Your task to perform on an android device: Open eBay Image 0: 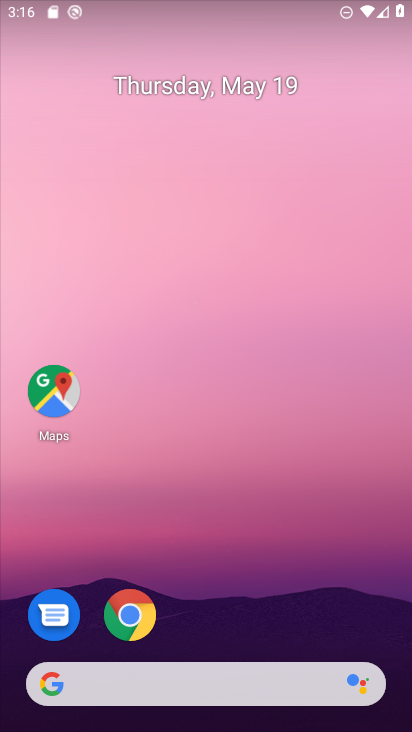
Step 0: click (115, 602)
Your task to perform on an android device: Open eBay Image 1: 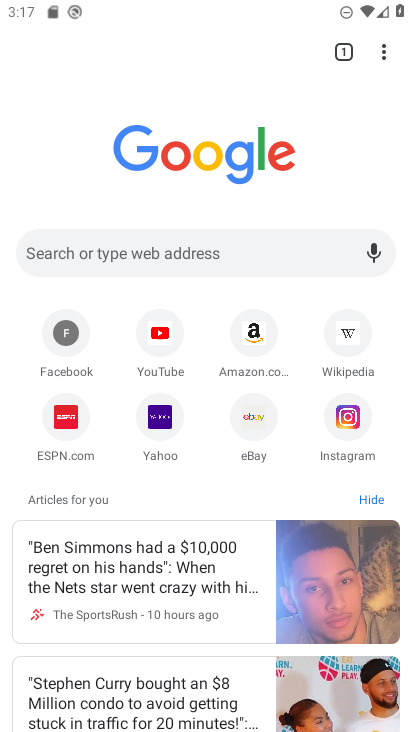
Step 1: click (234, 248)
Your task to perform on an android device: Open eBay Image 2: 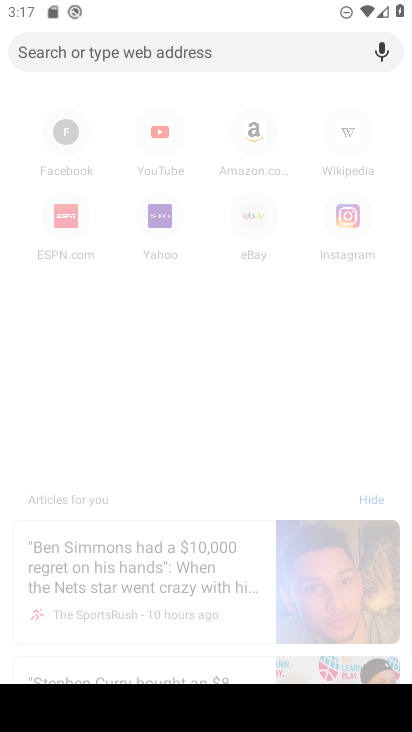
Step 2: click (228, 50)
Your task to perform on an android device: Open eBay Image 3: 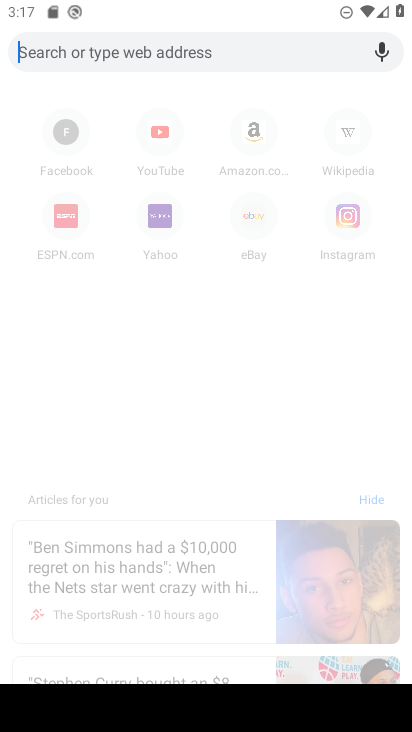
Step 3: type " eBay"
Your task to perform on an android device: Open eBay Image 4: 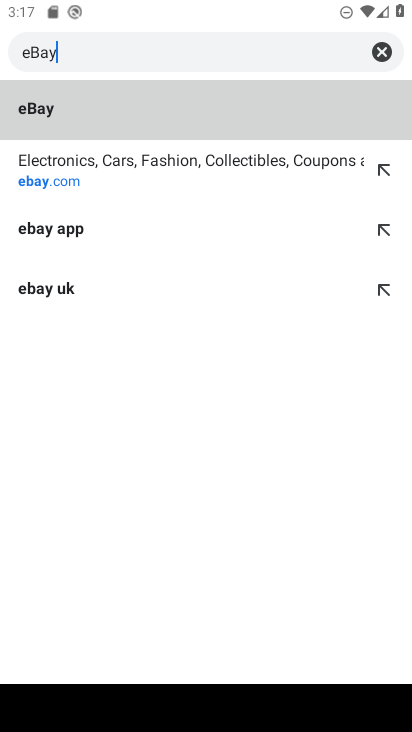
Step 4: task complete